Your task to perform on an android device: Open the stopwatch Image 0: 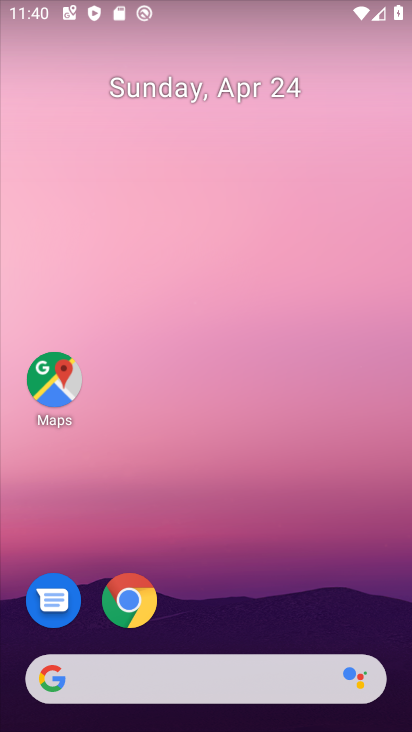
Step 0: drag from (224, 674) to (225, 330)
Your task to perform on an android device: Open the stopwatch Image 1: 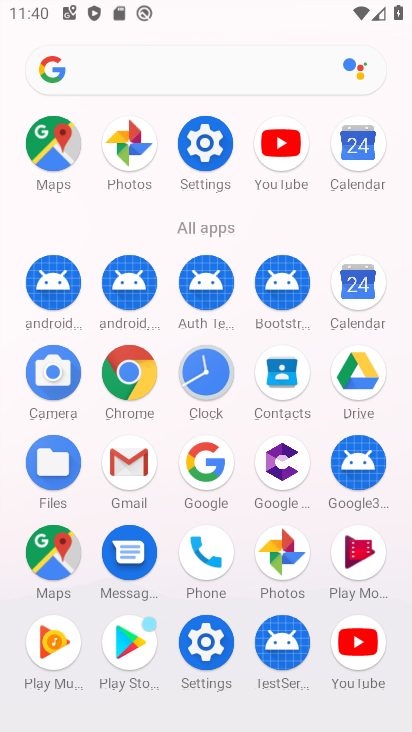
Step 1: click (209, 386)
Your task to perform on an android device: Open the stopwatch Image 2: 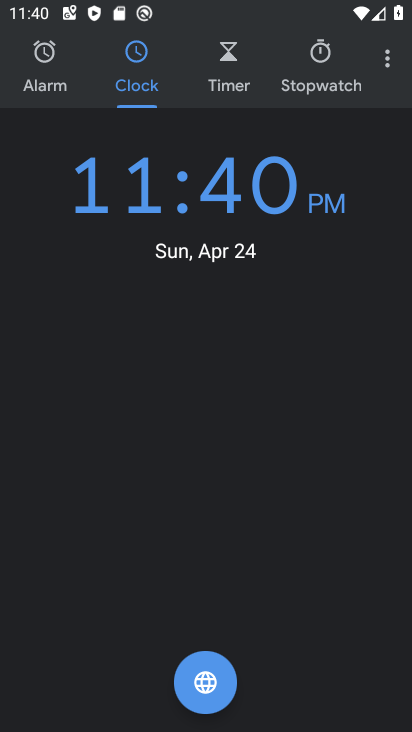
Step 2: click (230, 78)
Your task to perform on an android device: Open the stopwatch Image 3: 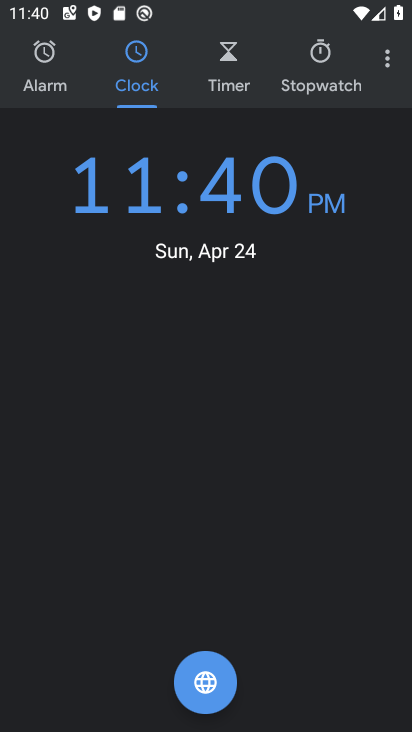
Step 3: click (325, 58)
Your task to perform on an android device: Open the stopwatch Image 4: 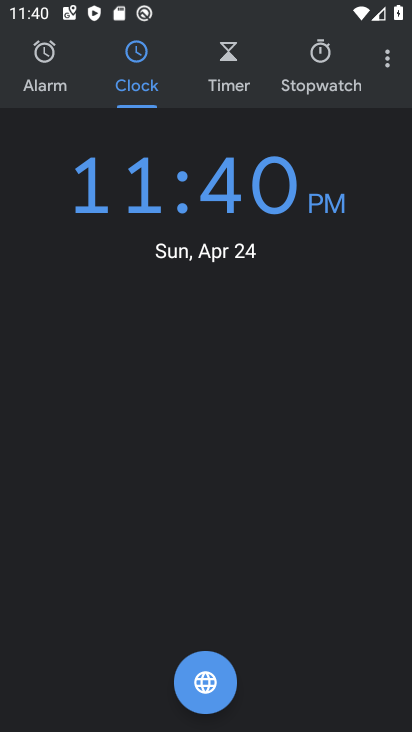
Step 4: click (327, 59)
Your task to perform on an android device: Open the stopwatch Image 5: 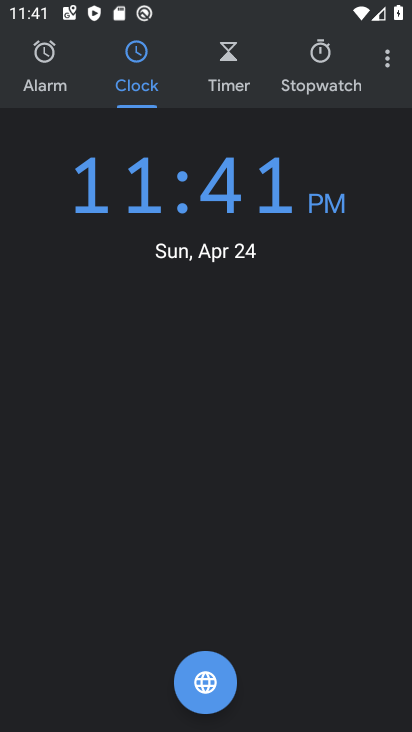
Step 5: click (330, 71)
Your task to perform on an android device: Open the stopwatch Image 6: 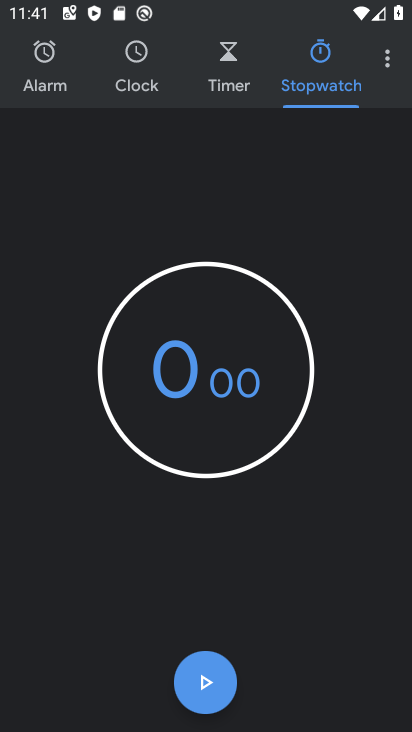
Step 6: task complete